Your task to perform on an android device: Go to Maps Image 0: 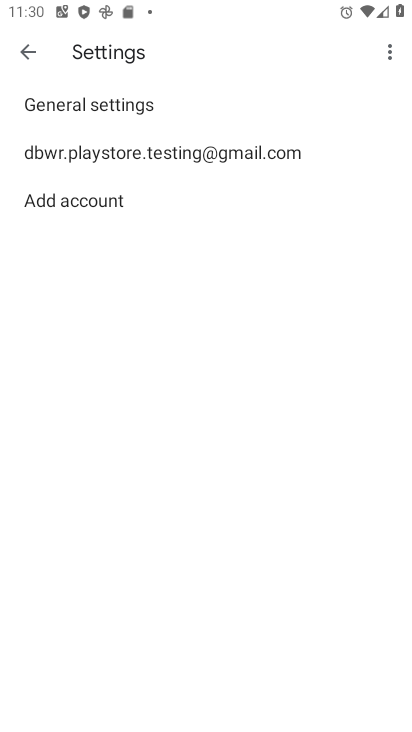
Step 0: press home button
Your task to perform on an android device: Go to Maps Image 1: 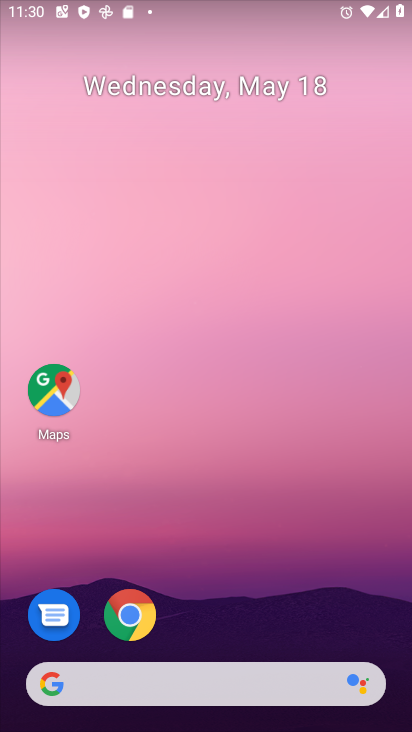
Step 1: drag from (208, 666) to (222, 302)
Your task to perform on an android device: Go to Maps Image 2: 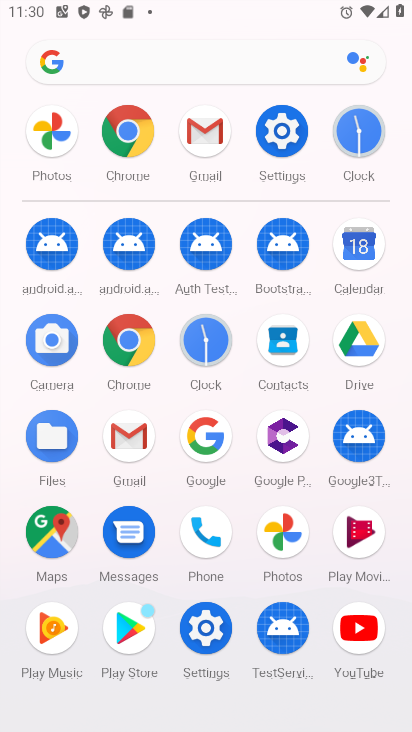
Step 2: click (68, 536)
Your task to perform on an android device: Go to Maps Image 3: 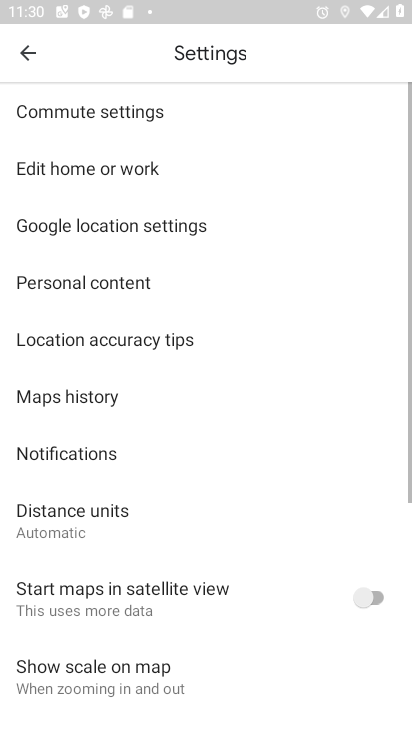
Step 3: drag from (106, 685) to (155, 164)
Your task to perform on an android device: Go to Maps Image 4: 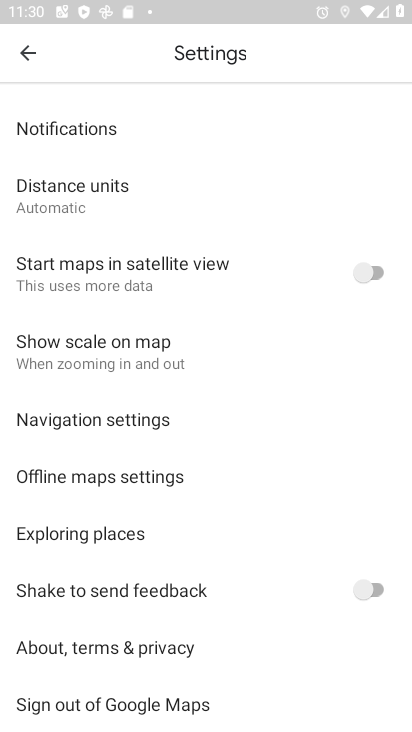
Step 4: click (31, 52)
Your task to perform on an android device: Go to Maps Image 5: 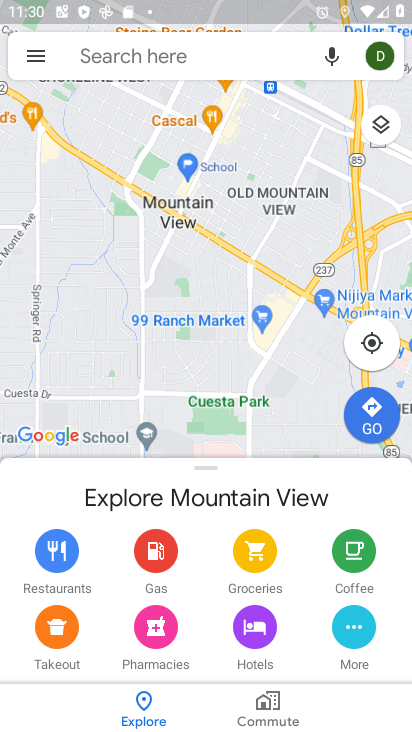
Step 5: task complete